Your task to perform on an android device: set the stopwatch Image 0: 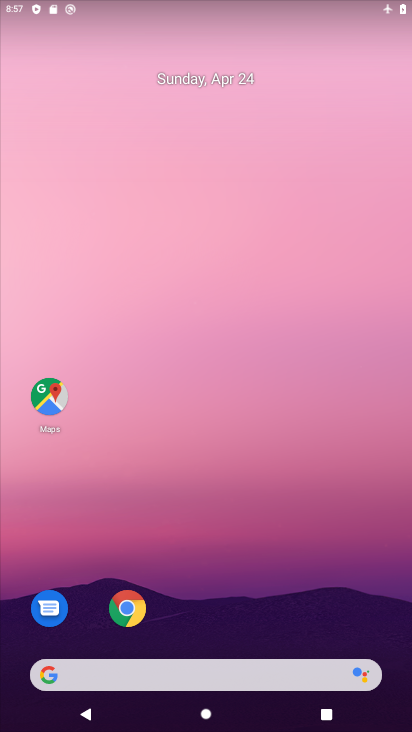
Step 0: drag from (220, 634) to (222, 118)
Your task to perform on an android device: set the stopwatch Image 1: 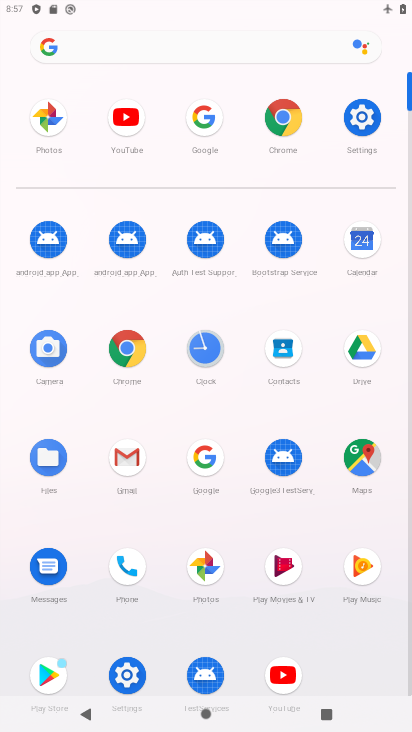
Step 1: click (207, 350)
Your task to perform on an android device: set the stopwatch Image 2: 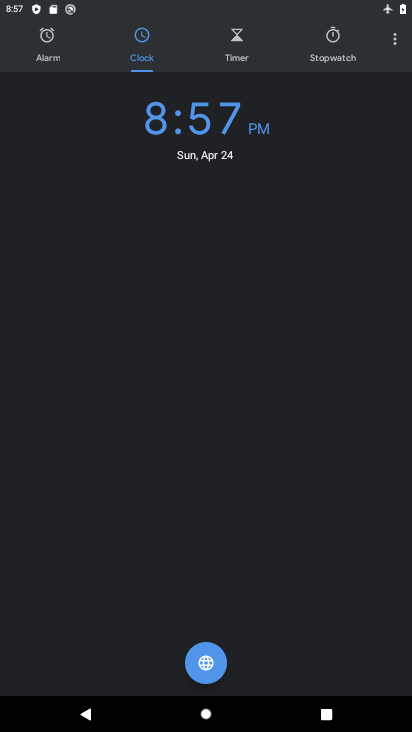
Step 2: click (333, 49)
Your task to perform on an android device: set the stopwatch Image 3: 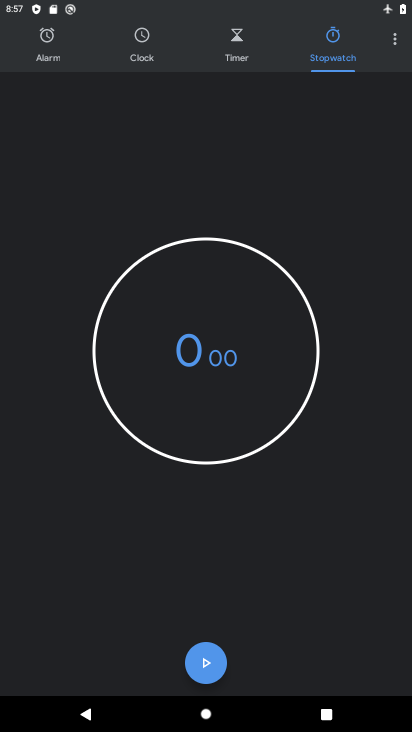
Step 3: task complete